Your task to perform on an android device: make emails show in primary in the gmail app Image 0: 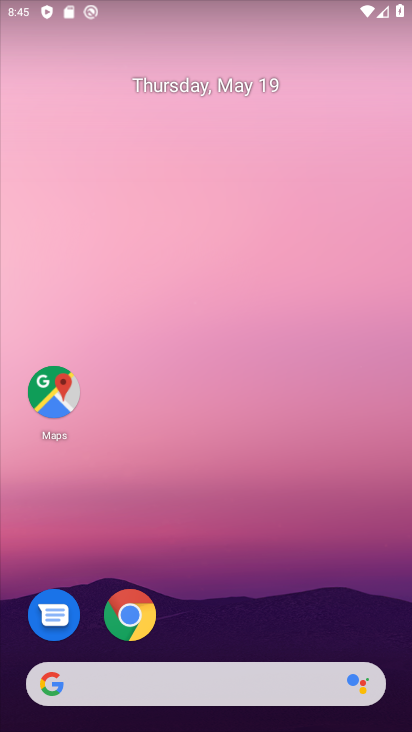
Step 0: drag from (204, 610) to (264, 40)
Your task to perform on an android device: make emails show in primary in the gmail app Image 1: 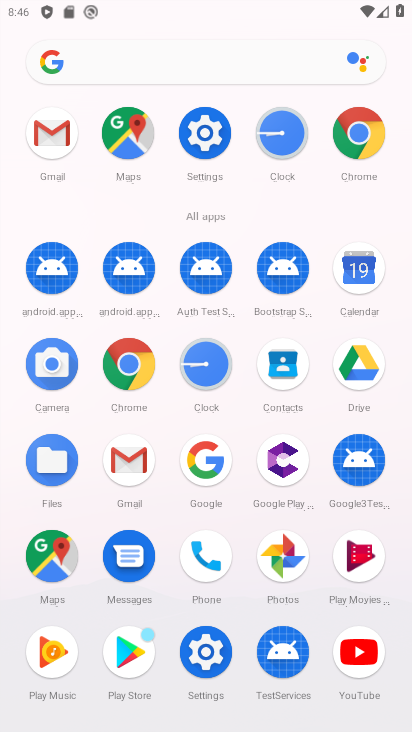
Step 1: click (57, 150)
Your task to perform on an android device: make emails show in primary in the gmail app Image 2: 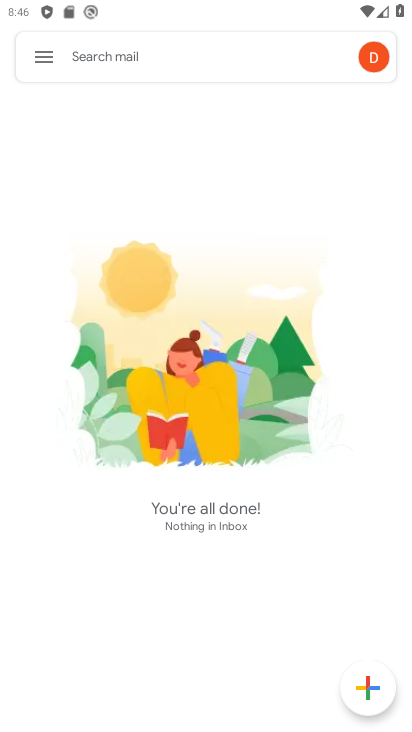
Step 2: click (53, 58)
Your task to perform on an android device: make emails show in primary in the gmail app Image 3: 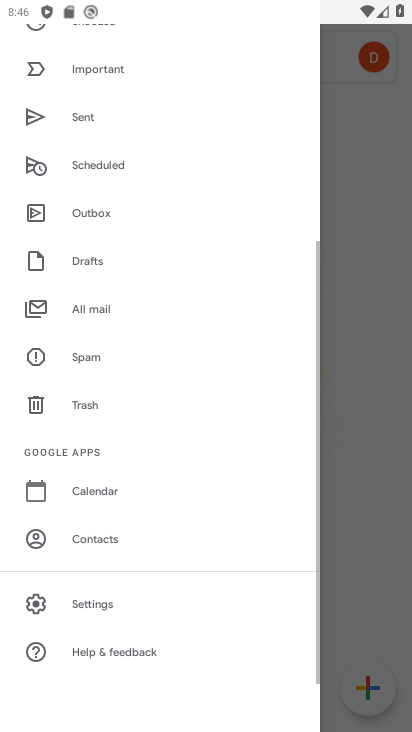
Step 3: click (27, 58)
Your task to perform on an android device: make emails show in primary in the gmail app Image 4: 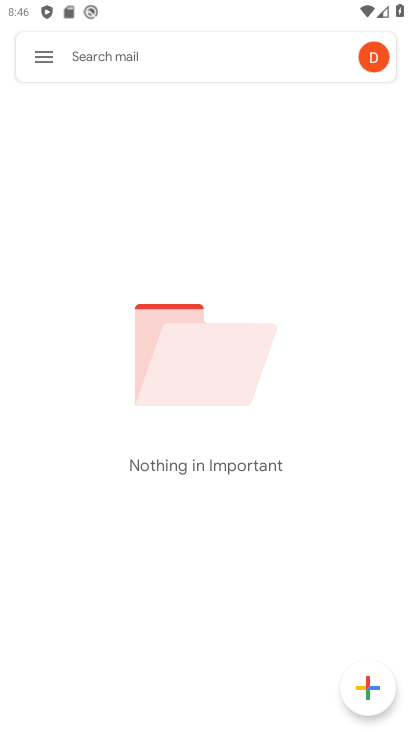
Step 4: task complete